Your task to perform on an android device: Open calendar and show me the fourth week of next month Image 0: 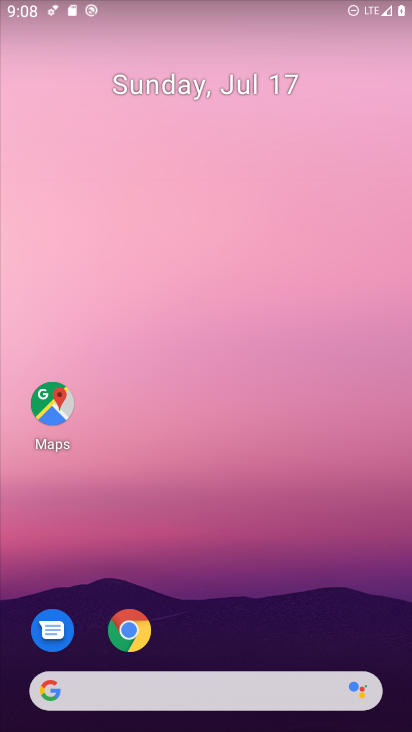
Step 0: drag from (336, 657) to (310, 226)
Your task to perform on an android device: Open calendar and show me the fourth week of next month Image 1: 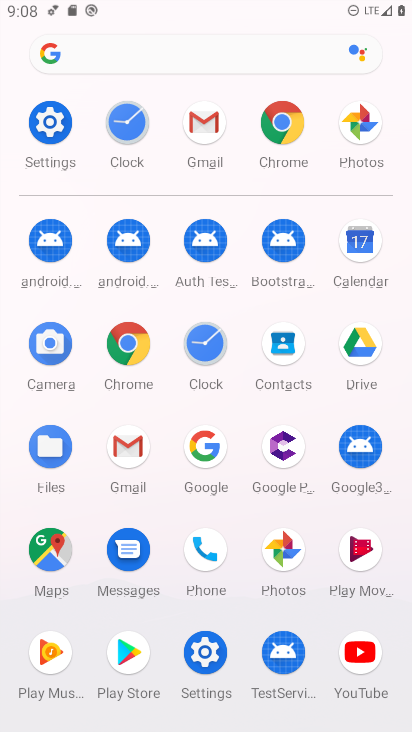
Step 1: click (348, 239)
Your task to perform on an android device: Open calendar and show me the fourth week of next month Image 2: 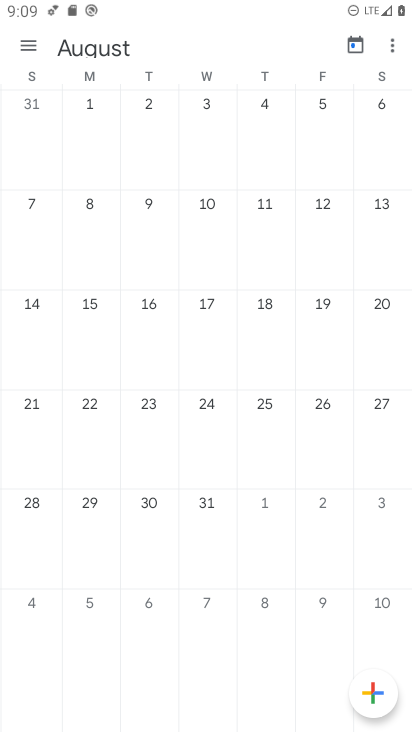
Step 2: task complete